Your task to perform on an android device: Open Yahoo.com Image 0: 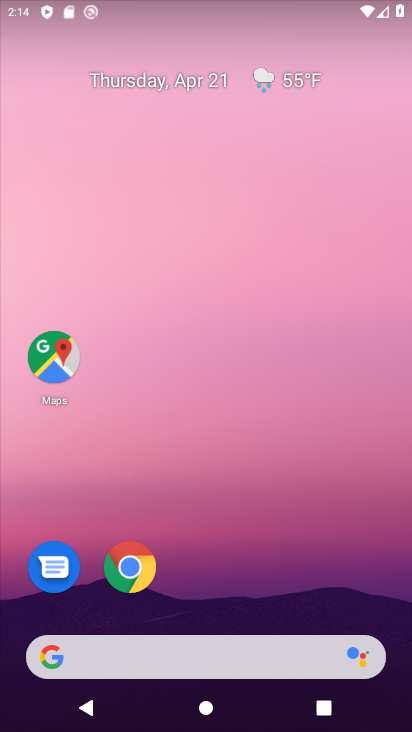
Step 0: drag from (236, 576) to (224, 136)
Your task to perform on an android device: Open Yahoo.com Image 1: 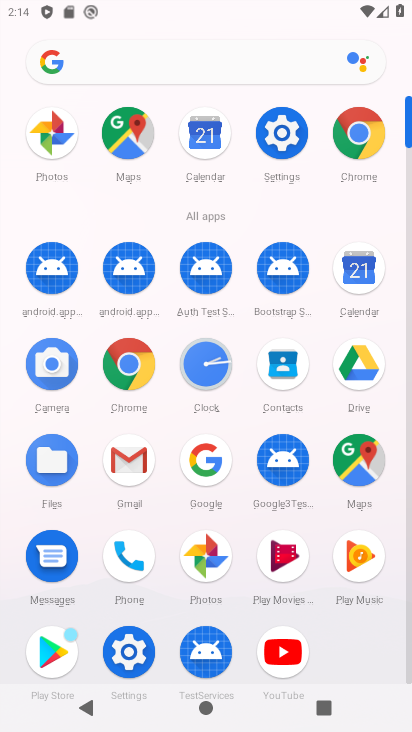
Step 1: click (360, 130)
Your task to perform on an android device: Open Yahoo.com Image 2: 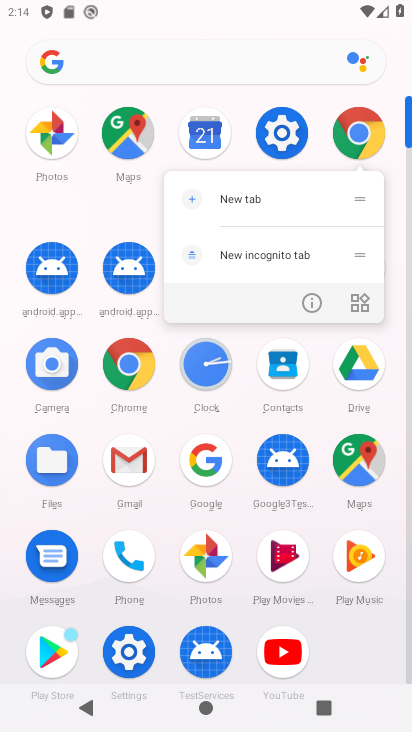
Step 2: click (130, 372)
Your task to perform on an android device: Open Yahoo.com Image 3: 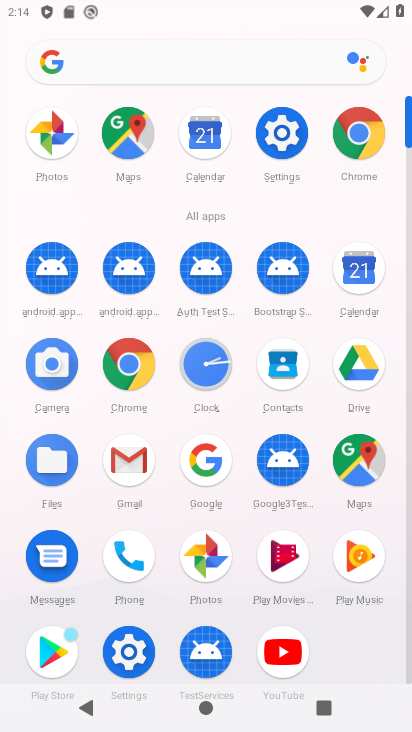
Step 3: click (128, 357)
Your task to perform on an android device: Open Yahoo.com Image 4: 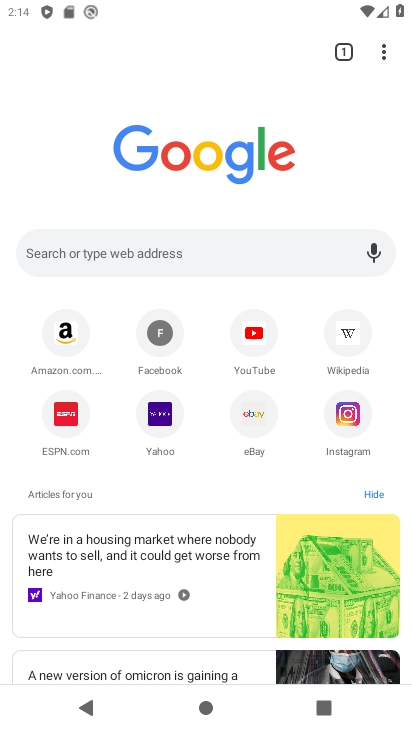
Step 4: click (268, 258)
Your task to perform on an android device: Open Yahoo.com Image 5: 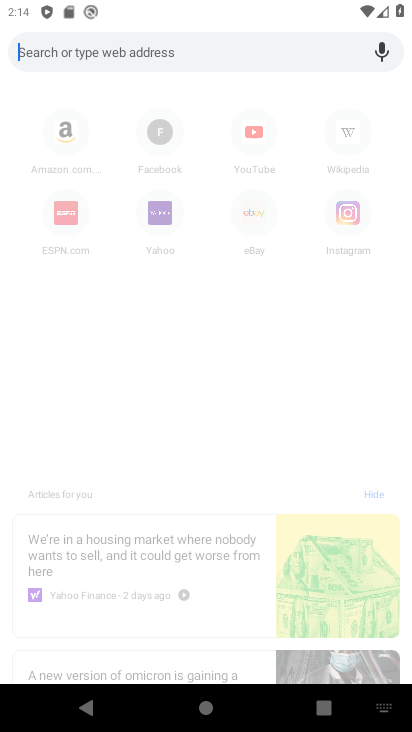
Step 5: type " Yahoo.com"
Your task to perform on an android device: Open Yahoo.com Image 6: 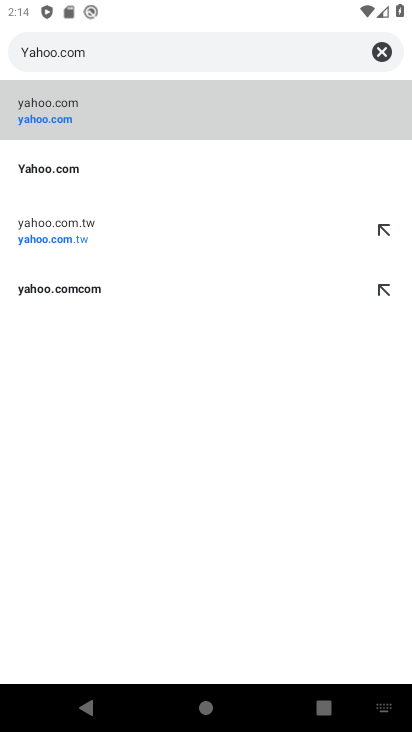
Step 6: click (44, 109)
Your task to perform on an android device: Open Yahoo.com Image 7: 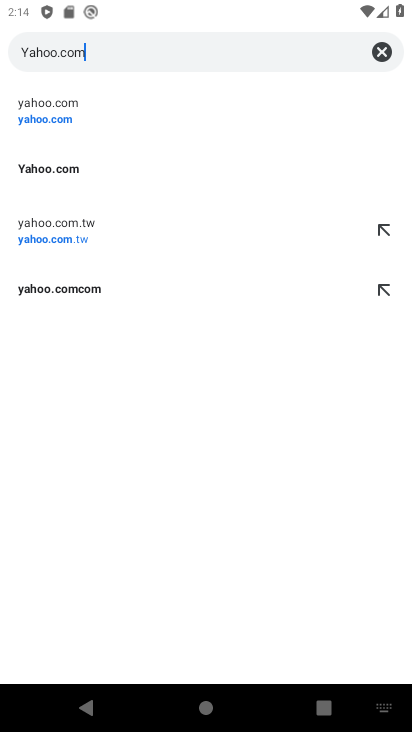
Step 7: click (31, 113)
Your task to perform on an android device: Open Yahoo.com Image 8: 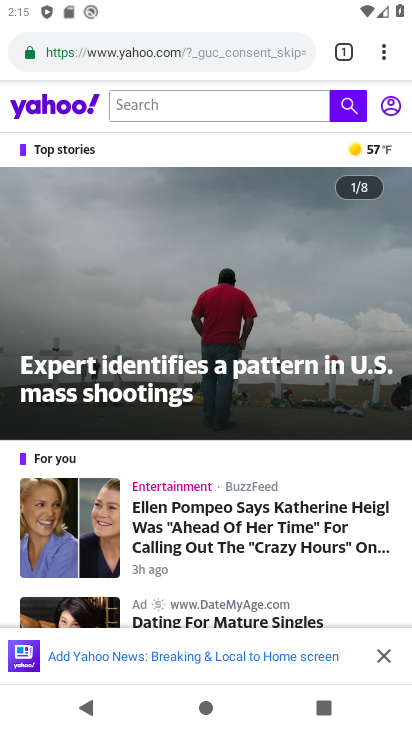
Step 8: task complete